Your task to perform on an android device: Open accessibility settings Image 0: 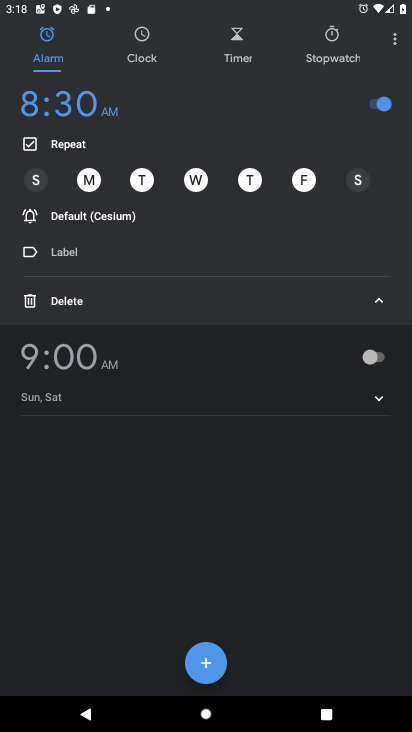
Step 0: press home button
Your task to perform on an android device: Open accessibility settings Image 1: 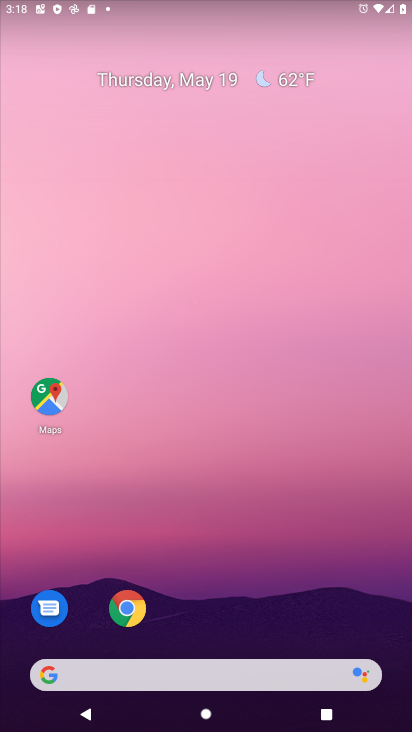
Step 1: drag from (245, 587) to (196, 18)
Your task to perform on an android device: Open accessibility settings Image 2: 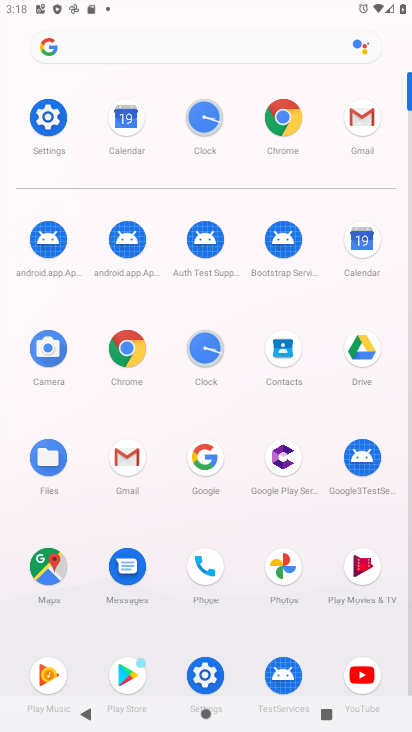
Step 2: click (47, 156)
Your task to perform on an android device: Open accessibility settings Image 3: 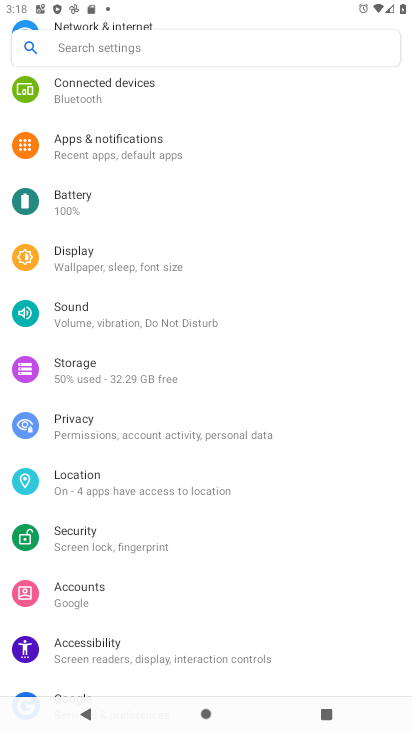
Step 3: click (189, 652)
Your task to perform on an android device: Open accessibility settings Image 4: 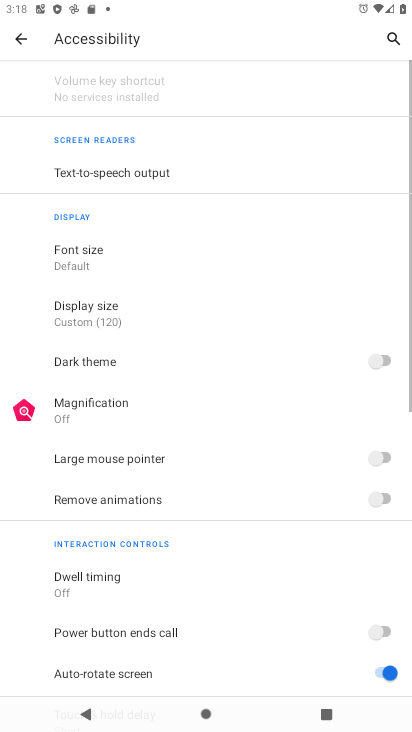
Step 4: task complete